Your task to perform on an android device: Open the map Image 0: 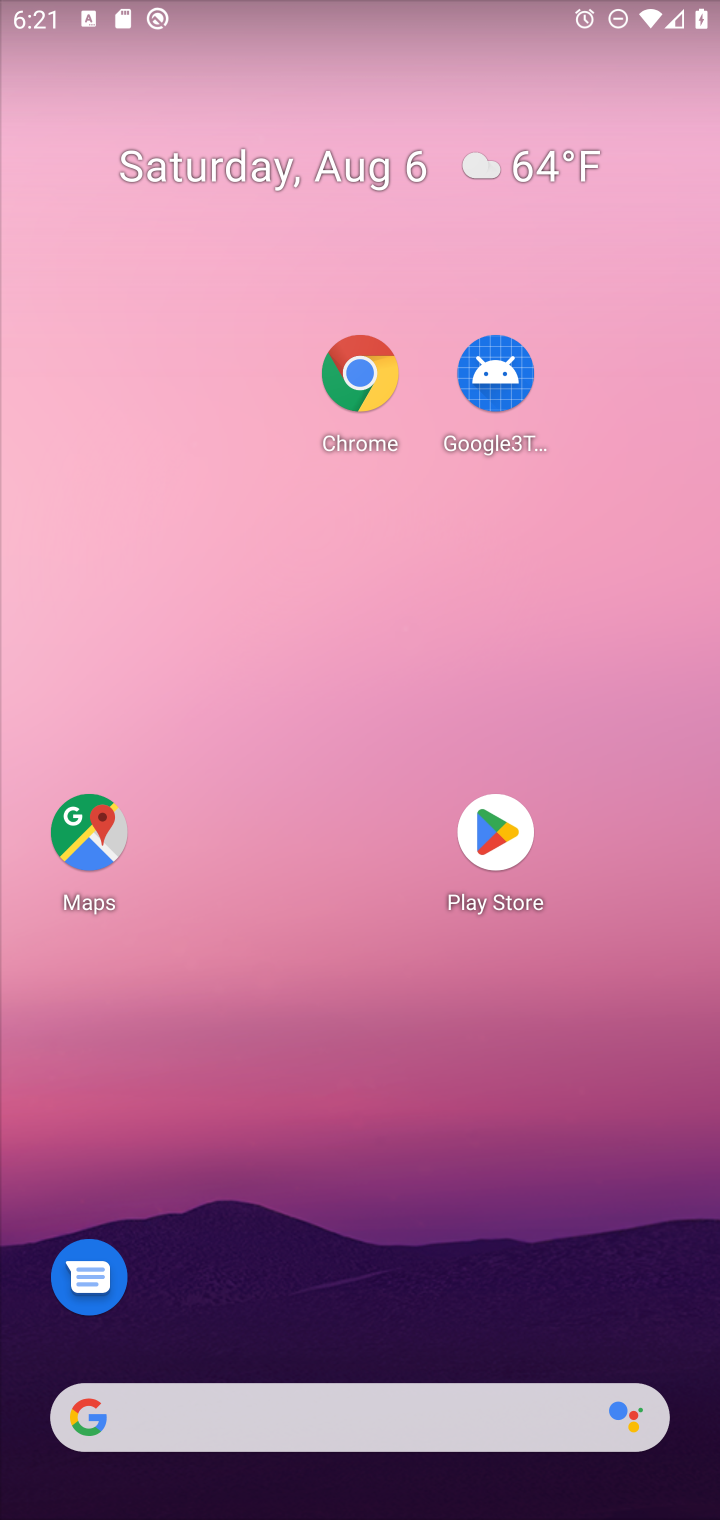
Step 0: drag from (443, 1417) to (448, 237)
Your task to perform on an android device: Open the map Image 1: 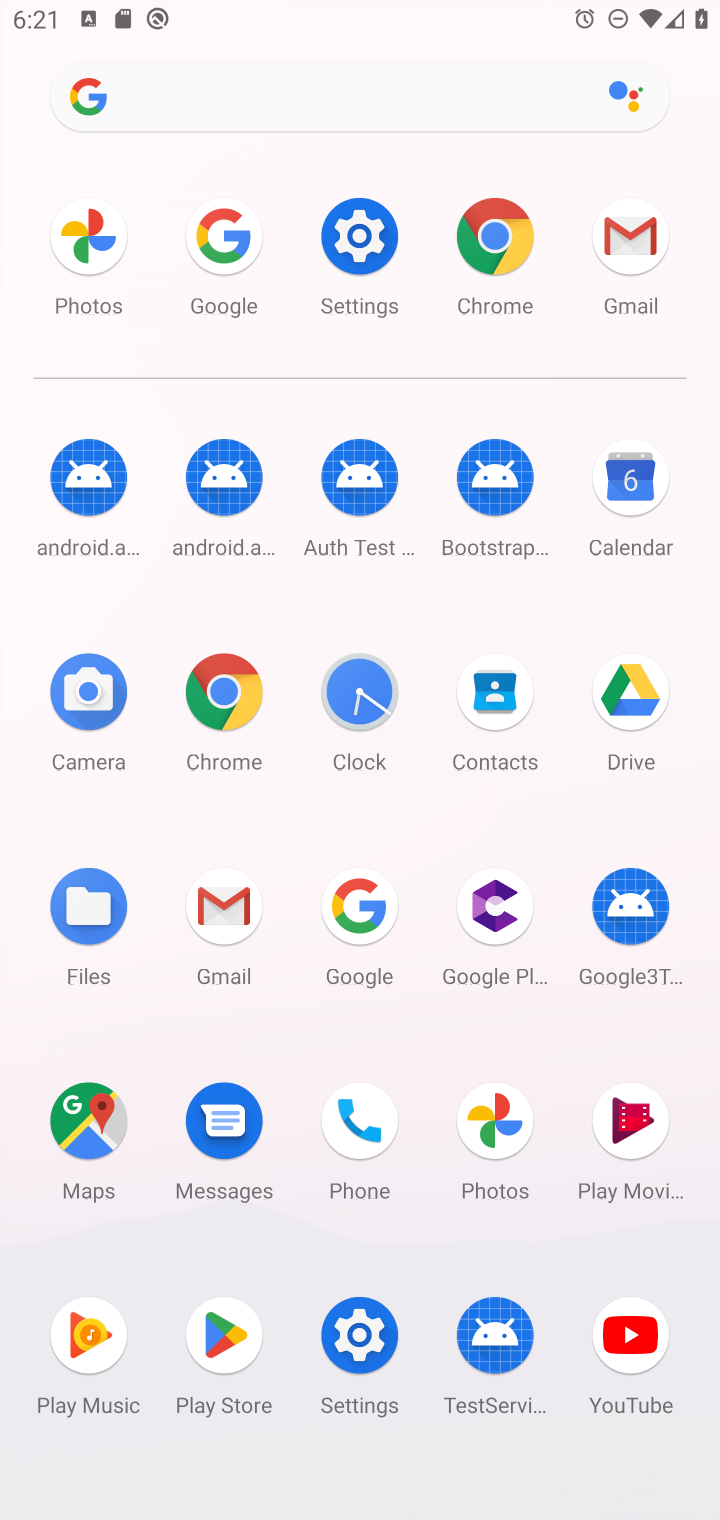
Step 1: click (105, 1117)
Your task to perform on an android device: Open the map Image 2: 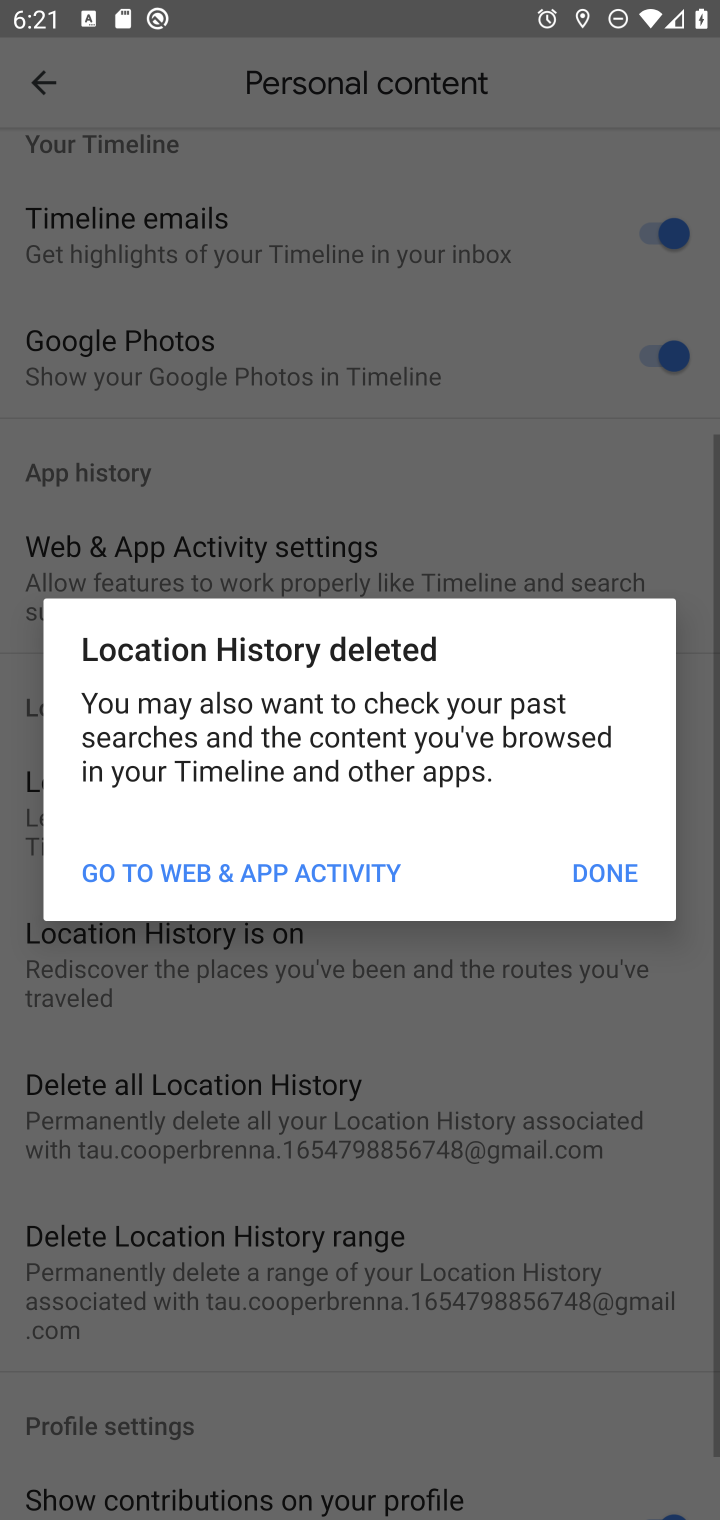
Step 2: task complete